Your task to perform on an android device: move a message to another label in the gmail app Image 0: 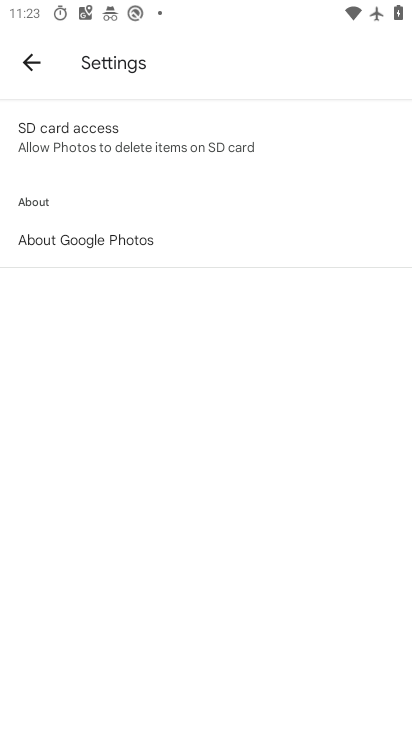
Step 0: click (23, 56)
Your task to perform on an android device: move a message to another label in the gmail app Image 1: 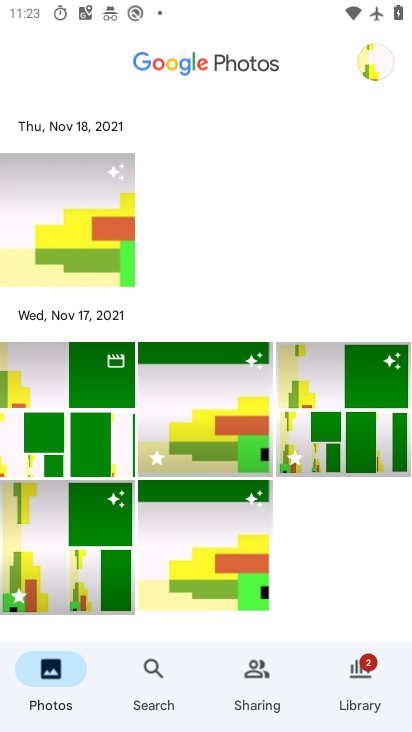
Step 1: press back button
Your task to perform on an android device: move a message to another label in the gmail app Image 2: 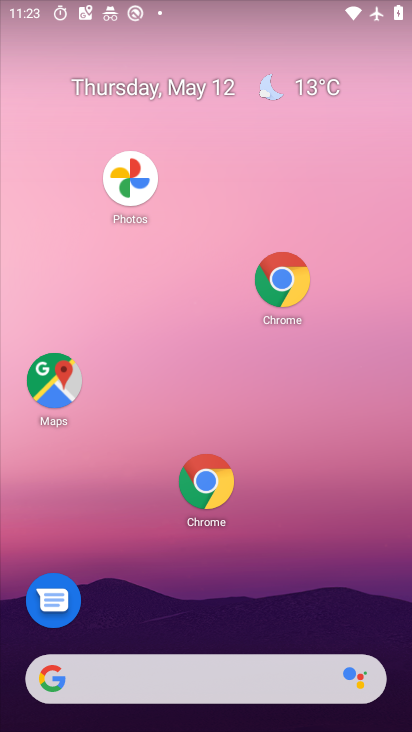
Step 2: drag from (262, 621) to (174, 87)
Your task to perform on an android device: move a message to another label in the gmail app Image 3: 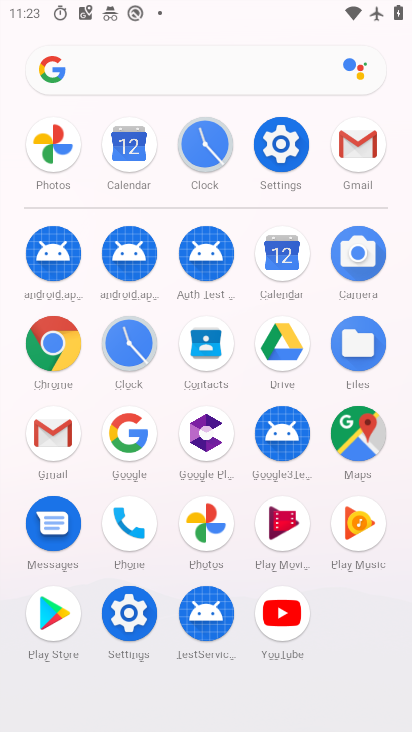
Step 3: click (57, 430)
Your task to perform on an android device: move a message to another label in the gmail app Image 4: 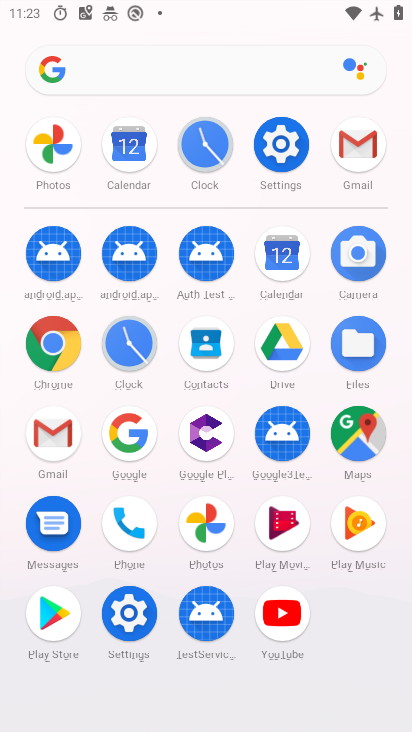
Step 4: click (57, 430)
Your task to perform on an android device: move a message to another label in the gmail app Image 5: 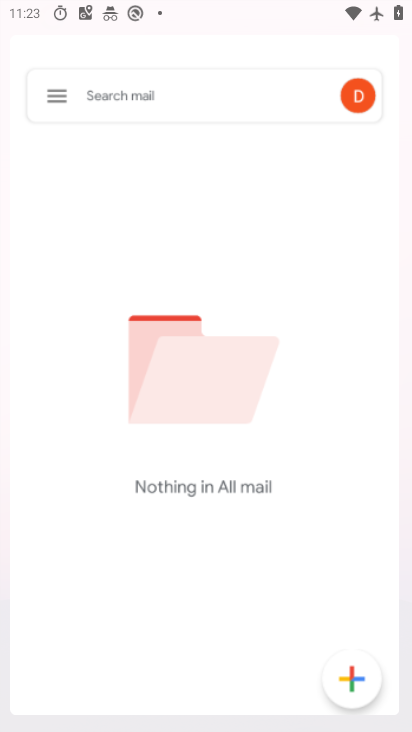
Step 5: click (56, 430)
Your task to perform on an android device: move a message to another label in the gmail app Image 6: 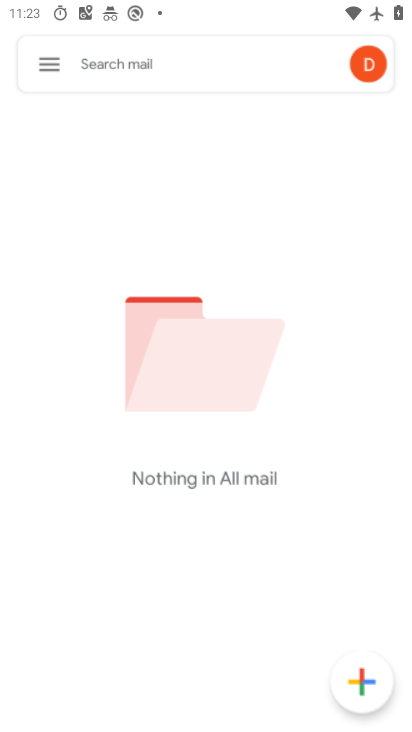
Step 6: click (56, 430)
Your task to perform on an android device: move a message to another label in the gmail app Image 7: 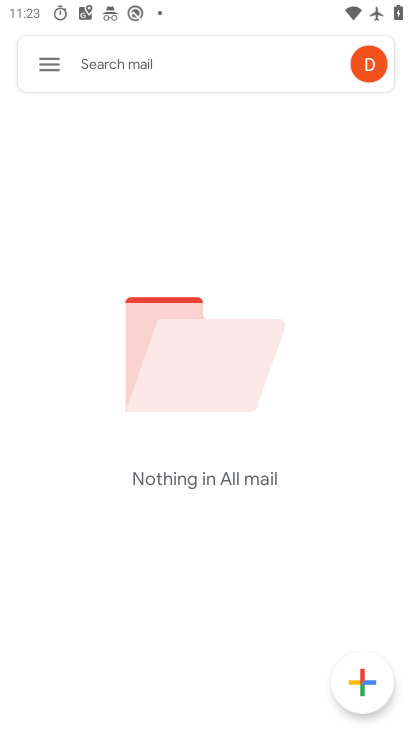
Step 7: click (45, 65)
Your task to perform on an android device: move a message to another label in the gmail app Image 8: 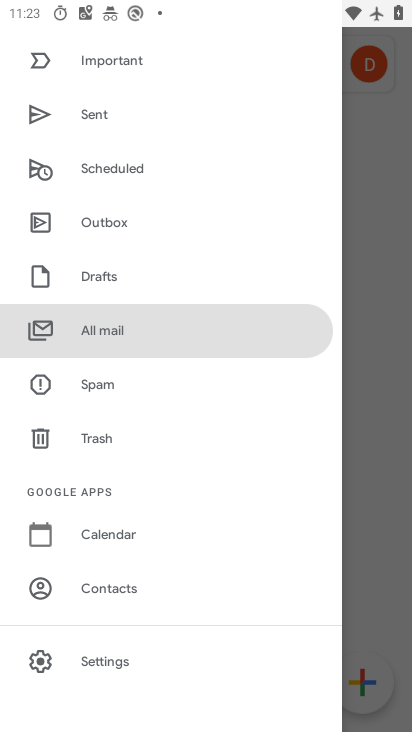
Step 8: click (99, 332)
Your task to perform on an android device: move a message to another label in the gmail app Image 9: 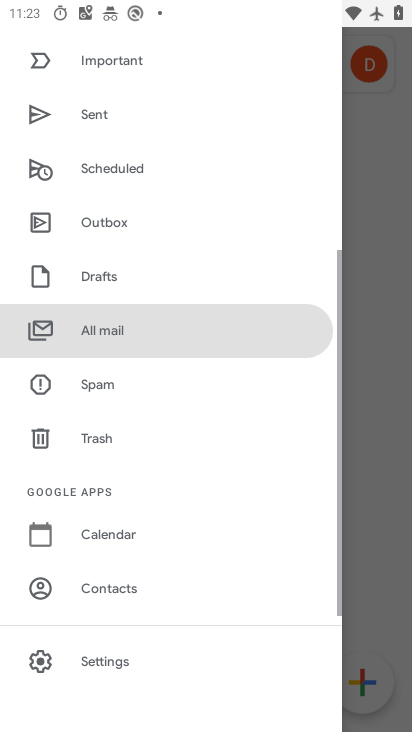
Step 9: click (99, 332)
Your task to perform on an android device: move a message to another label in the gmail app Image 10: 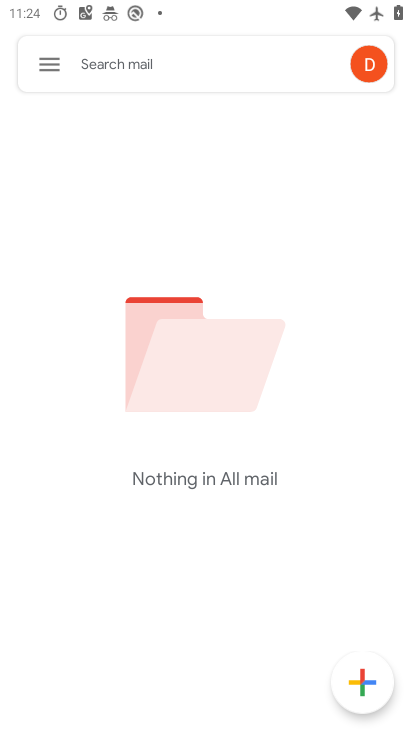
Step 10: task complete